Your task to perform on an android device: Set the phone to "Do not disturb". Image 0: 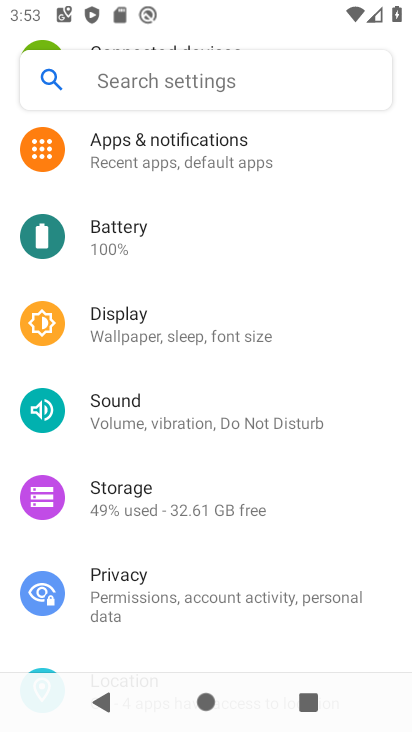
Step 0: press home button
Your task to perform on an android device: Set the phone to "Do not disturb". Image 1: 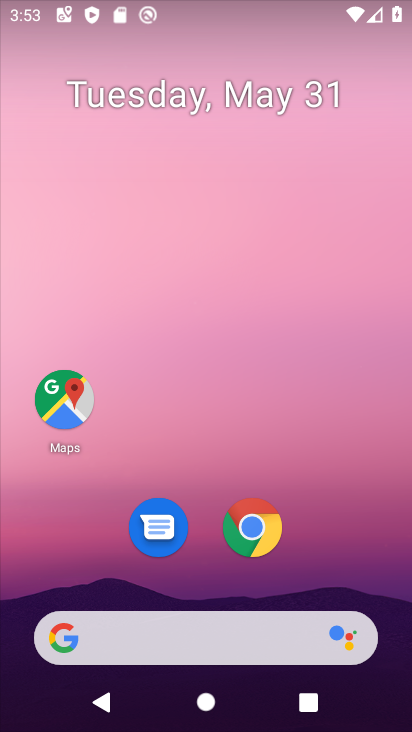
Step 1: drag from (166, 610) to (86, 110)
Your task to perform on an android device: Set the phone to "Do not disturb". Image 2: 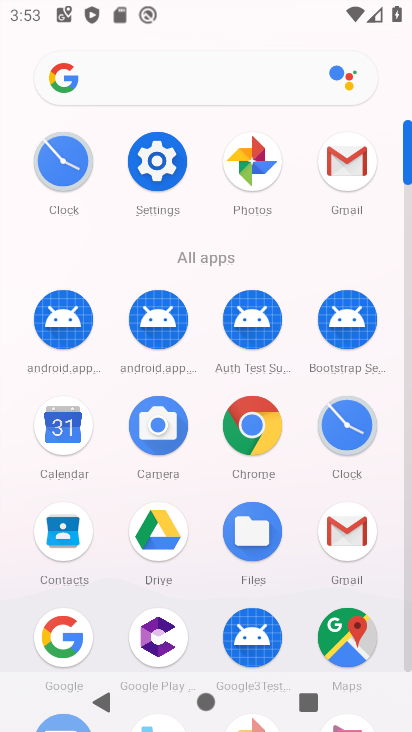
Step 2: drag from (174, 9) to (168, 605)
Your task to perform on an android device: Set the phone to "Do not disturb". Image 3: 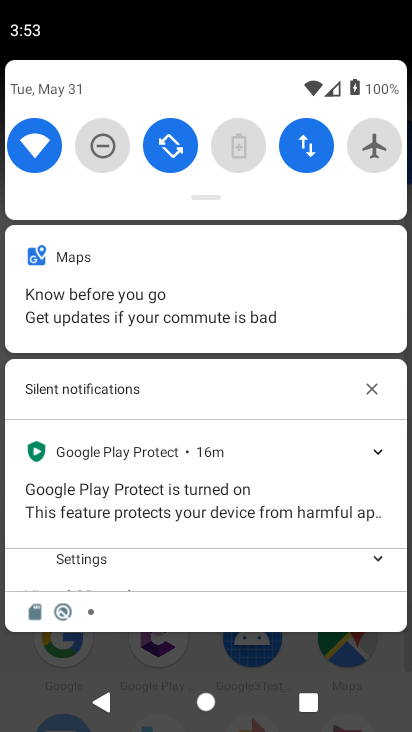
Step 3: click (105, 154)
Your task to perform on an android device: Set the phone to "Do not disturb". Image 4: 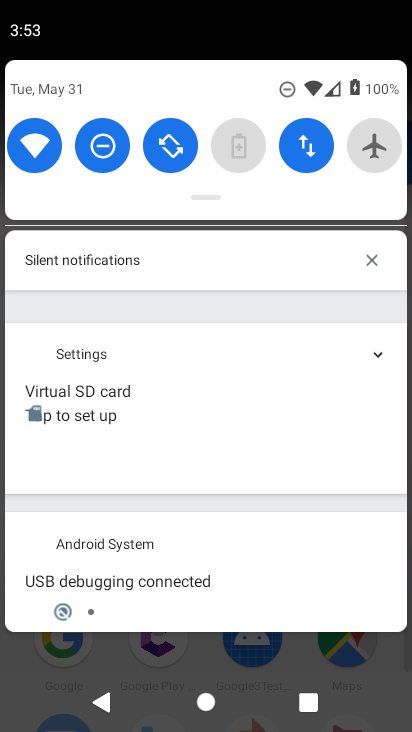
Step 4: task complete